Your task to perform on an android device: turn off wifi Image 0: 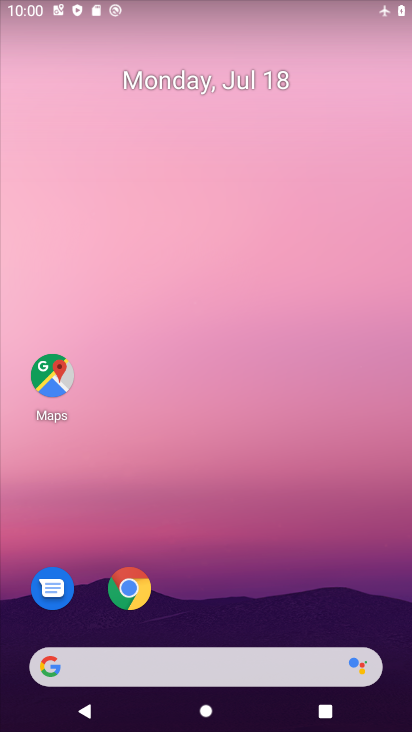
Step 0: drag from (244, 579) to (247, 4)
Your task to perform on an android device: turn off wifi Image 1: 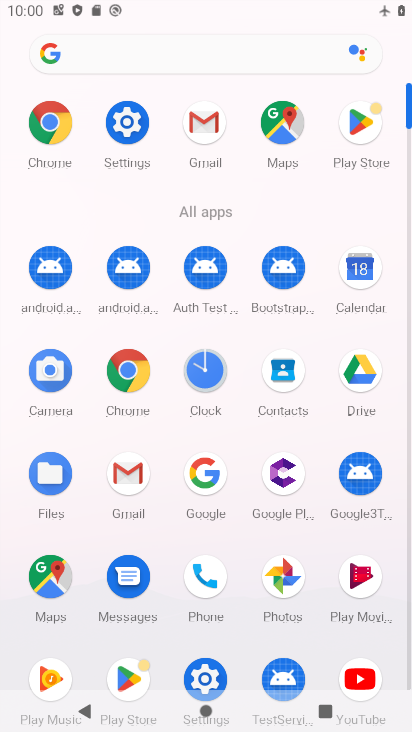
Step 1: click (136, 114)
Your task to perform on an android device: turn off wifi Image 2: 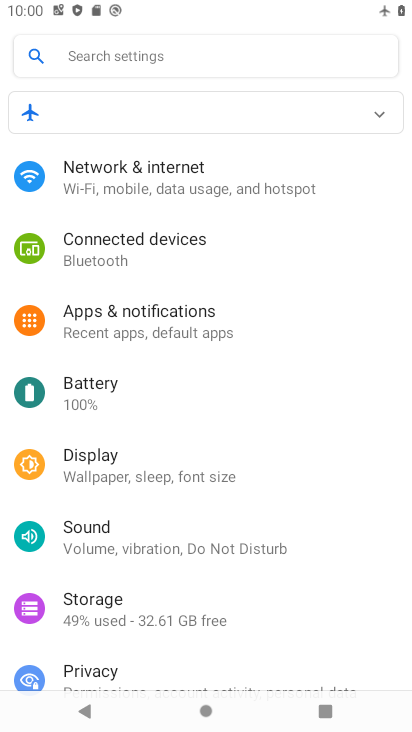
Step 2: click (129, 164)
Your task to perform on an android device: turn off wifi Image 3: 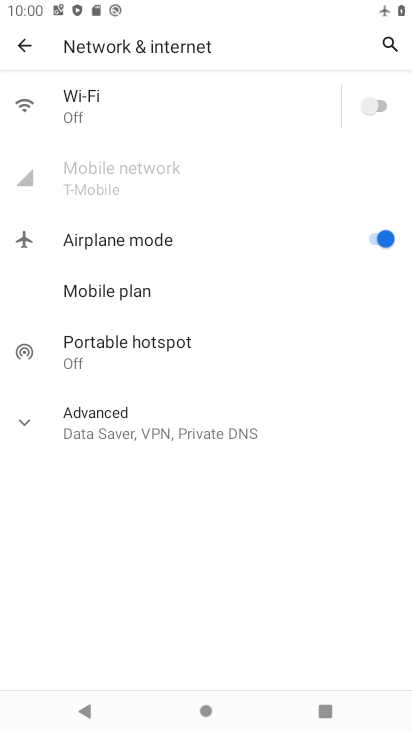
Step 3: task complete